Your task to perform on an android device: toggle translation in the chrome app Image 0: 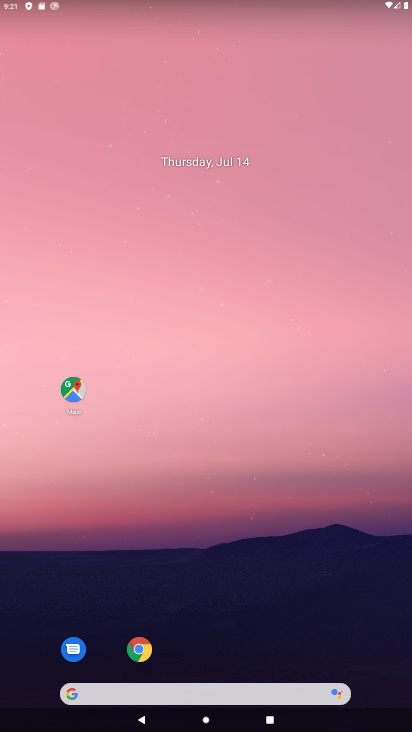
Step 0: click (134, 635)
Your task to perform on an android device: toggle translation in the chrome app Image 1: 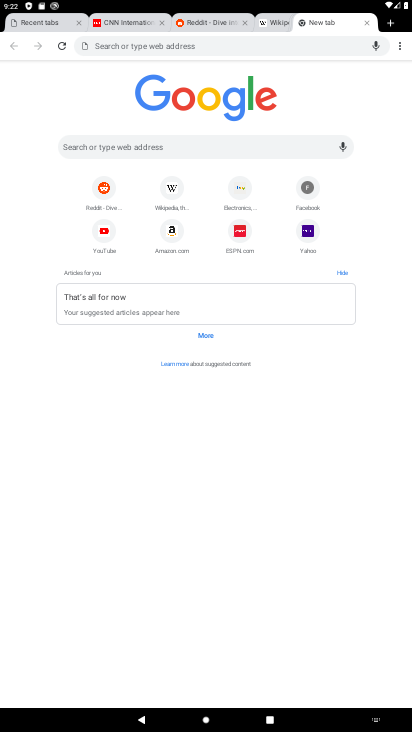
Step 1: click (397, 43)
Your task to perform on an android device: toggle translation in the chrome app Image 2: 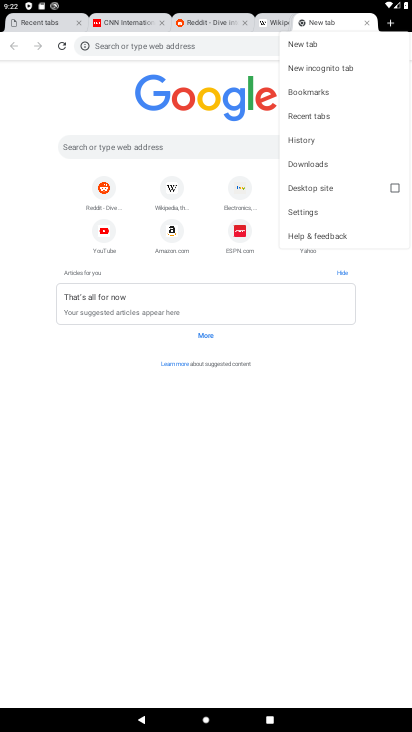
Step 2: click (309, 213)
Your task to perform on an android device: toggle translation in the chrome app Image 3: 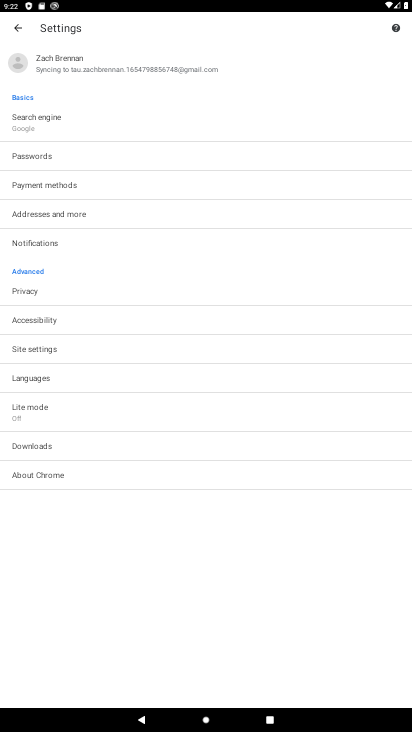
Step 3: click (35, 384)
Your task to perform on an android device: toggle translation in the chrome app Image 4: 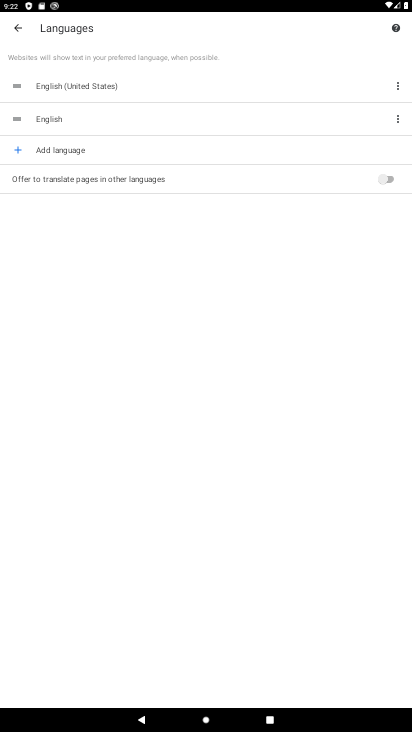
Step 4: click (386, 178)
Your task to perform on an android device: toggle translation in the chrome app Image 5: 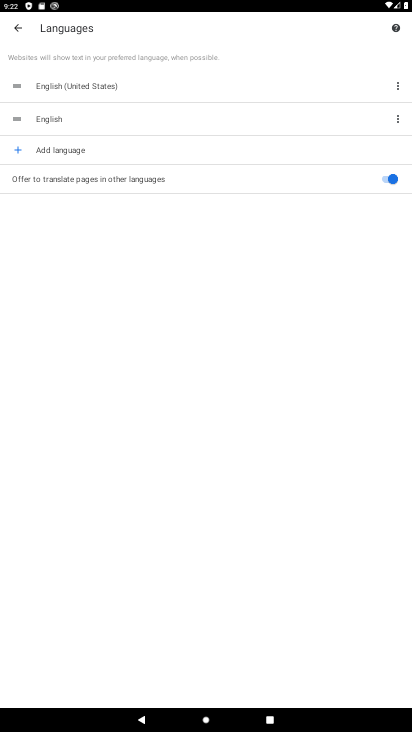
Step 5: task complete